Your task to perform on an android device: Add "macbook air" to the cart on costco.com Image 0: 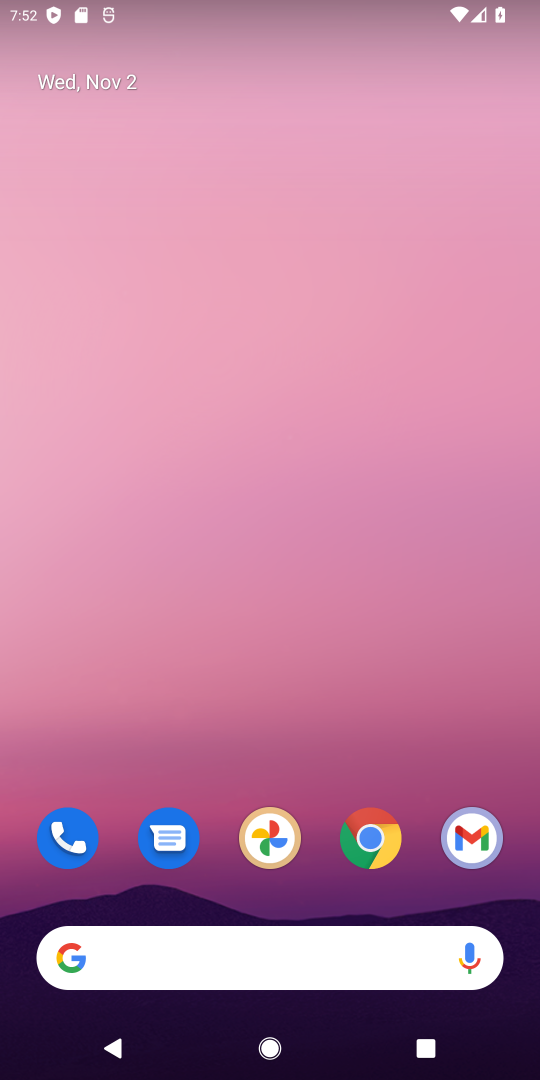
Step 0: click (379, 841)
Your task to perform on an android device: Add "macbook air" to the cart on costco.com Image 1: 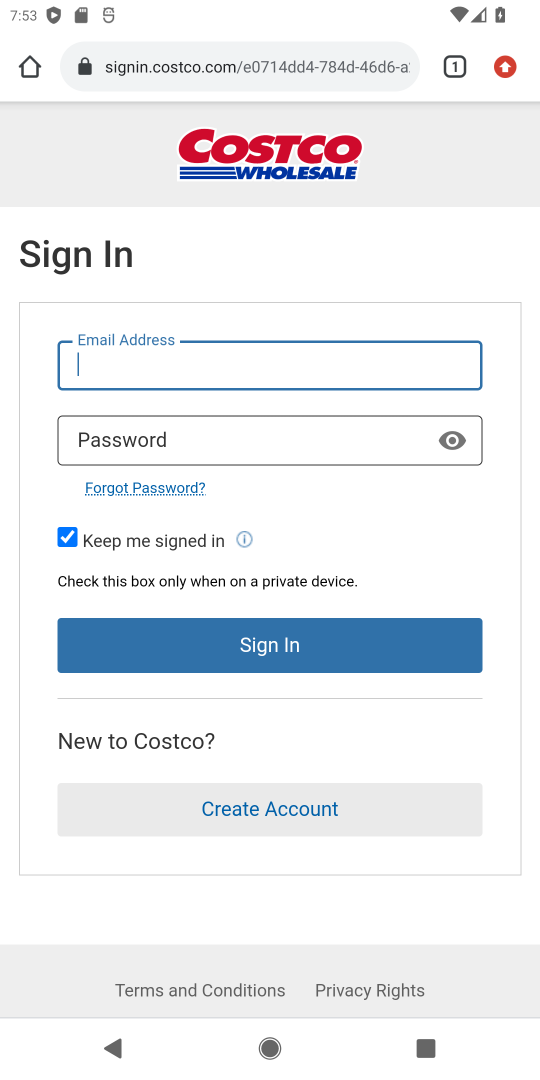
Step 1: click (269, 76)
Your task to perform on an android device: Add "macbook air" to the cart on costco.com Image 2: 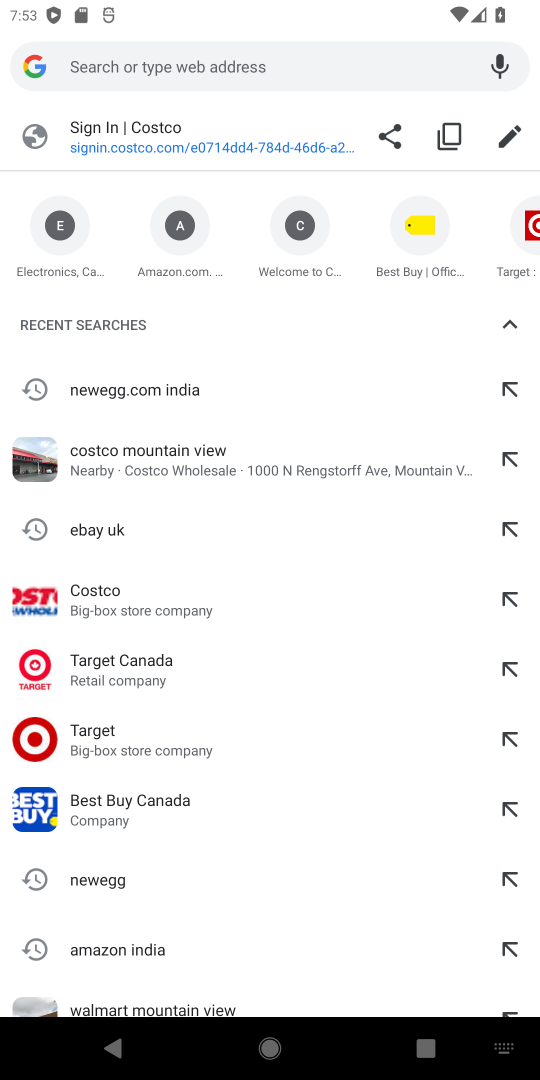
Step 2: type "costco.com"
Your task to perform on an android device: Add "macbook air" to the cart on costco.com Image 3: 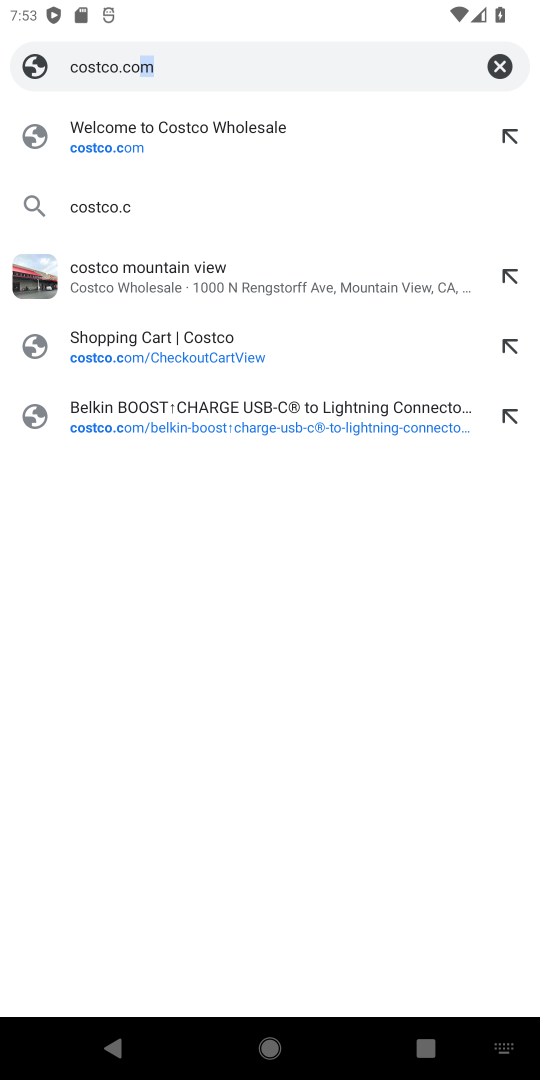
Step 3: type ""
Your task to perform on an android device: Add "macbook air" to the cart on costco.com Image 4: 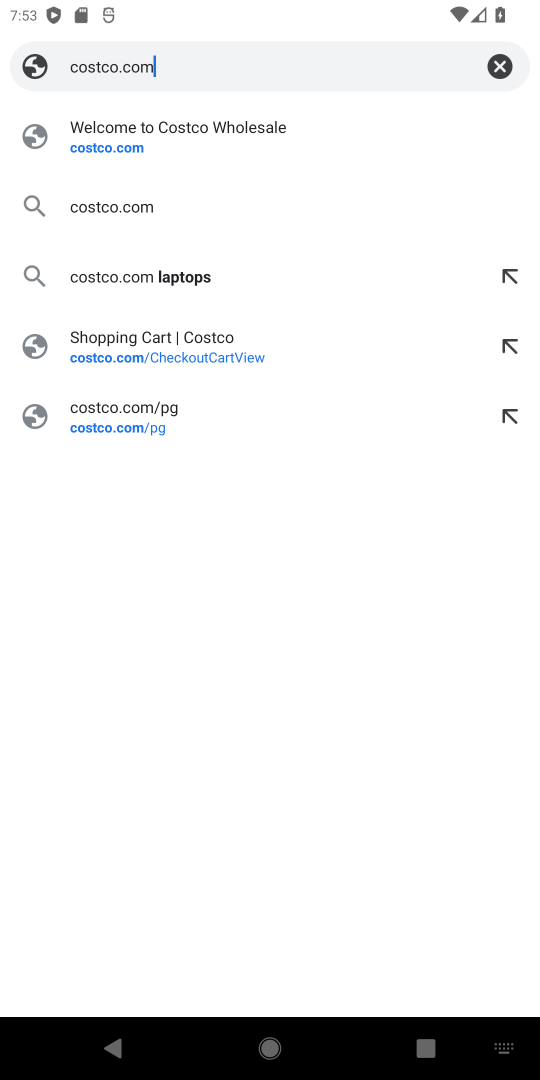
Step 4: press enter
Your task to perform on an android device: Add "macbook air" to the cart on costco.com Image 5: 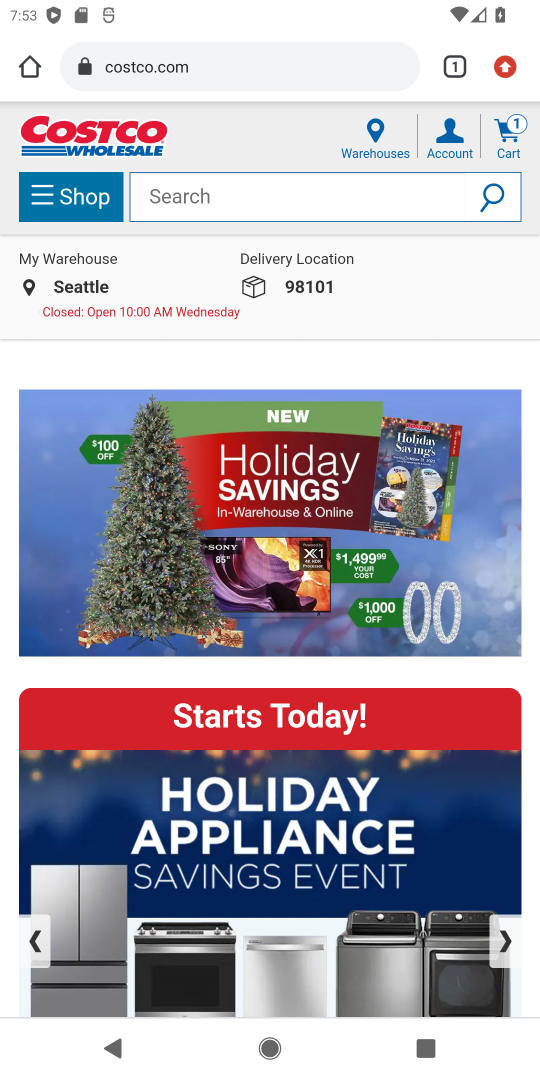
Step 5: click (309, 195)
Your task to perform on an android device: Add "macbook air" to the cart on costco.com Image 6: 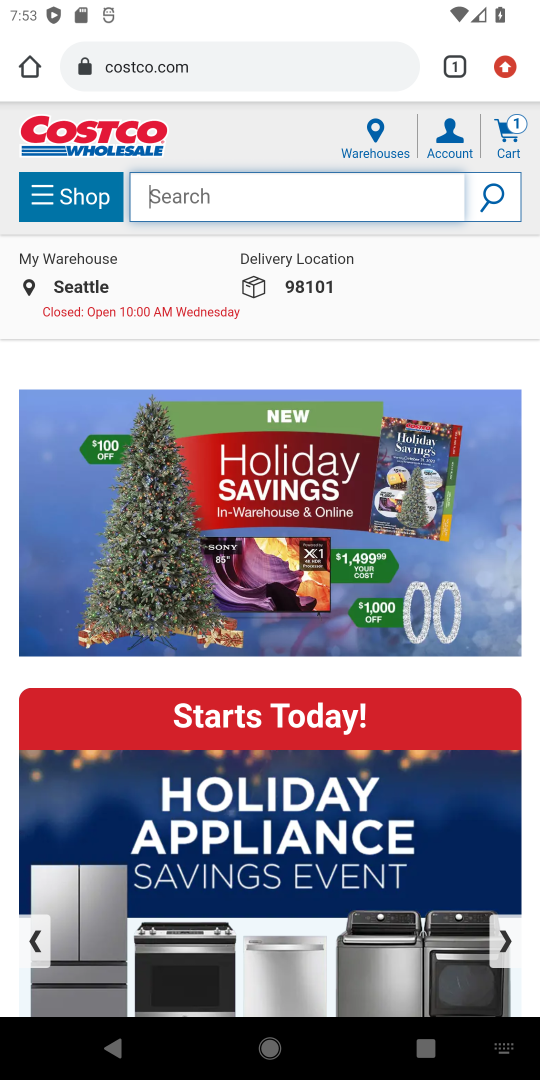
Step 6: type "macbook air"
Your task to perform on an android device: Add "macbook air" to the cart on costco.com Image 7: 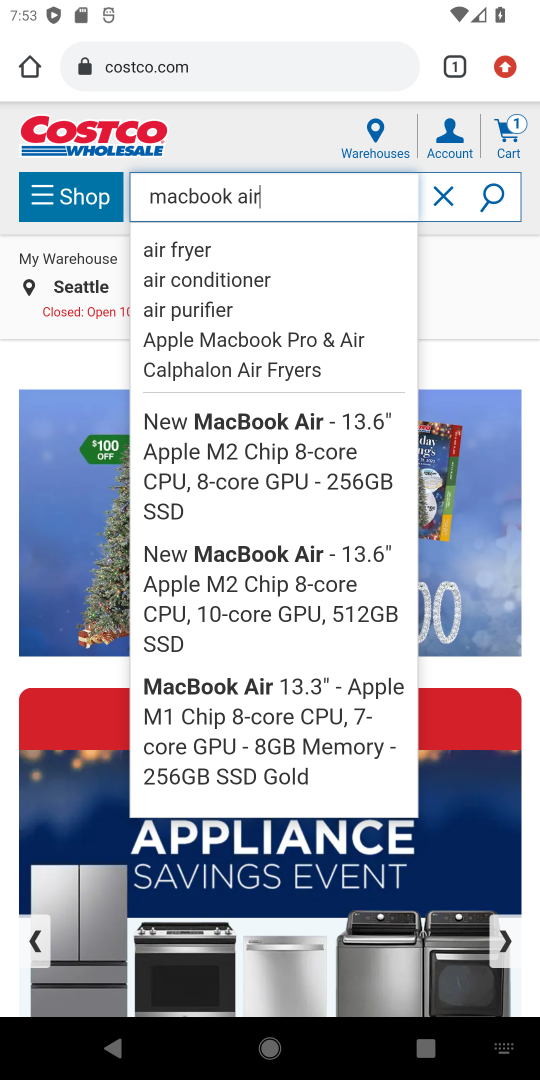
Step 7: press enter
Your task to perform on an android device: Add "macbook air" to the cart on costco.com Image 8: 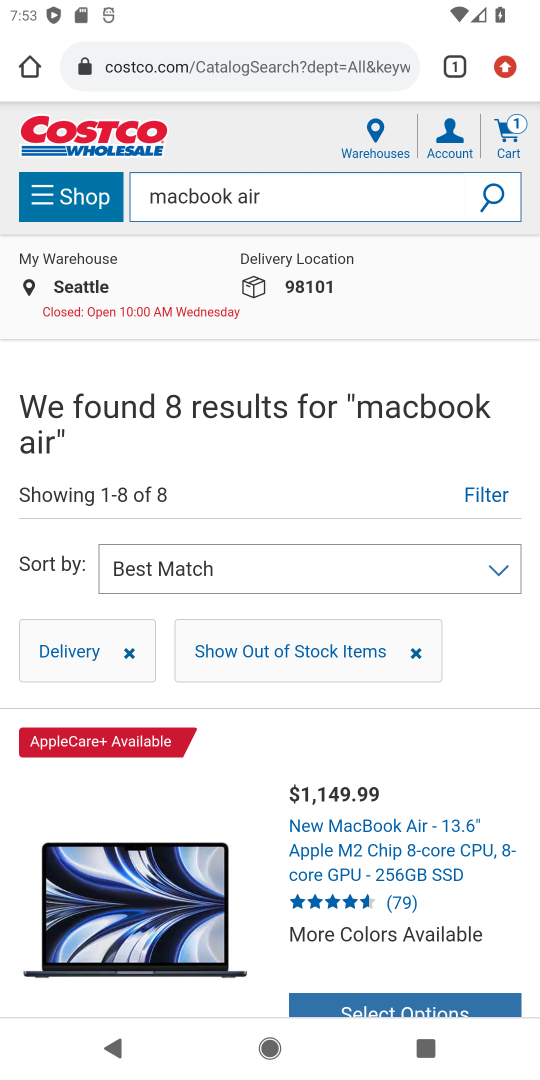
Step 8: drag from (429, 786) to (352, 528)
Your task to perform on an android device: Add "macbook air" to the cart on costco.com Image 9: 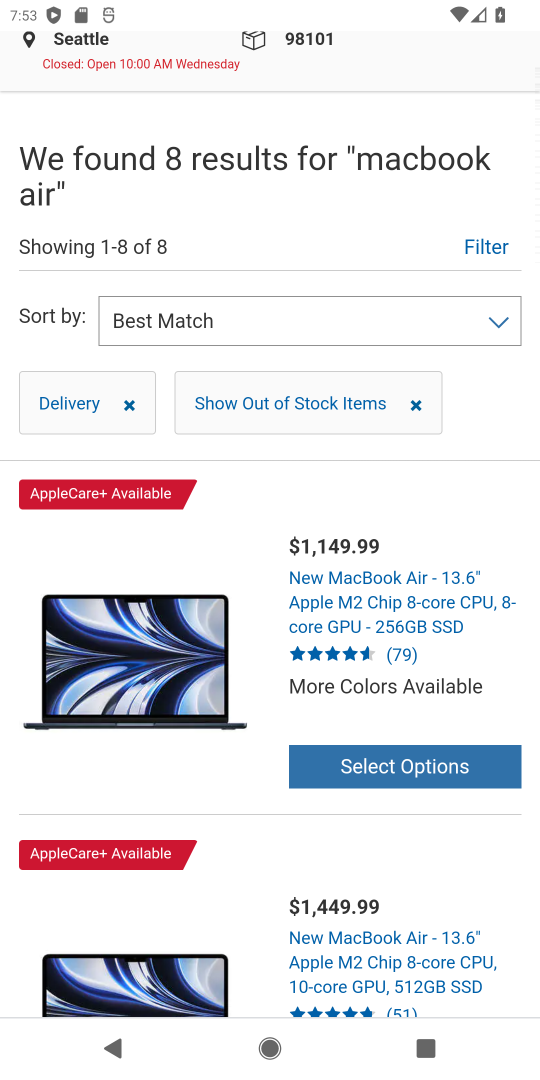
Step 9: click (403, 602)
Your task to perform on an android device: Add "macbook air" to the cart on costco.com Image 10: 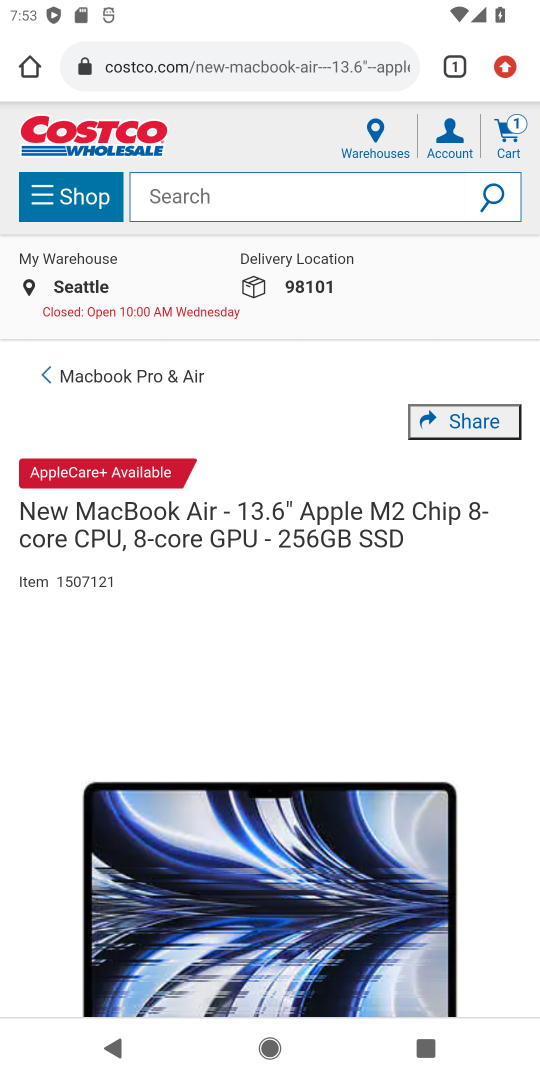
Step 10: drag from (464, 822) to (421, 39)
Your task to perform on an android device: Add "macbook air" to the cart on costco.com Image 11: 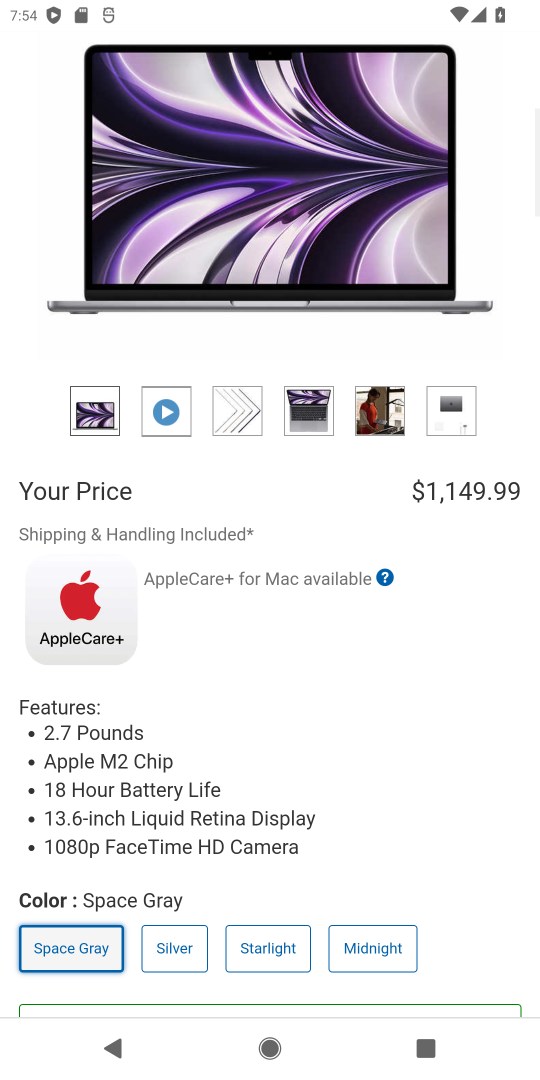
Step 11: drag from (484, 795) to (472, 215)
Your task to perform on an android device: Add "macbook air" to the cart on costco.com Image 12: 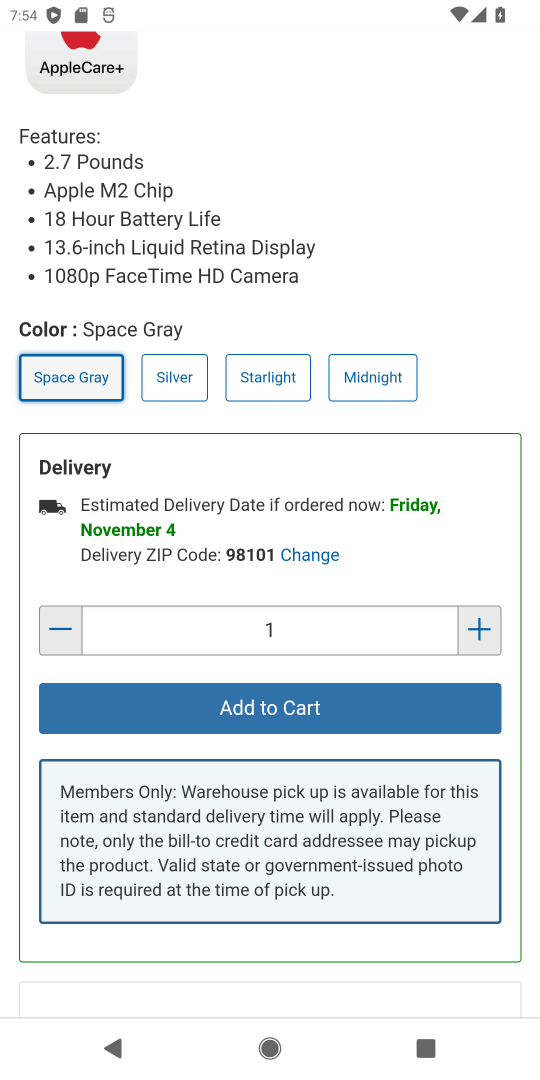
Step 12: click (436, 696)
Your task to perform on an android device: Add "macbook air" to the cart on costco.com Image 13: 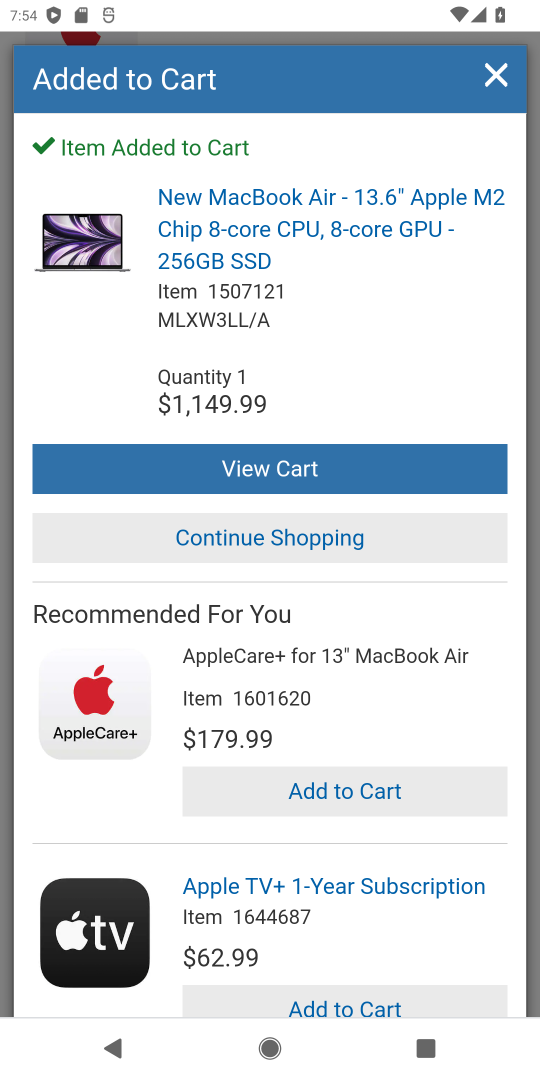
Step 13: click (302, 455)
Your task to perform on an android device: Add "macbook air" to the cart on costco.com Image 14: 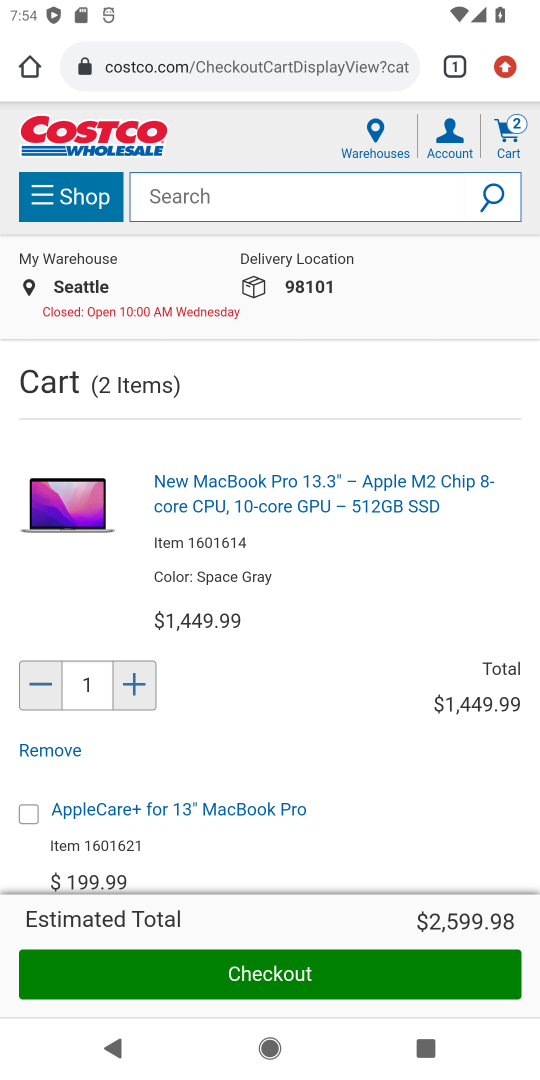
Step 14: click (328, 973)
Your task to perform on an android device: Add "macbook air" to the cart on costco.com Image 15: 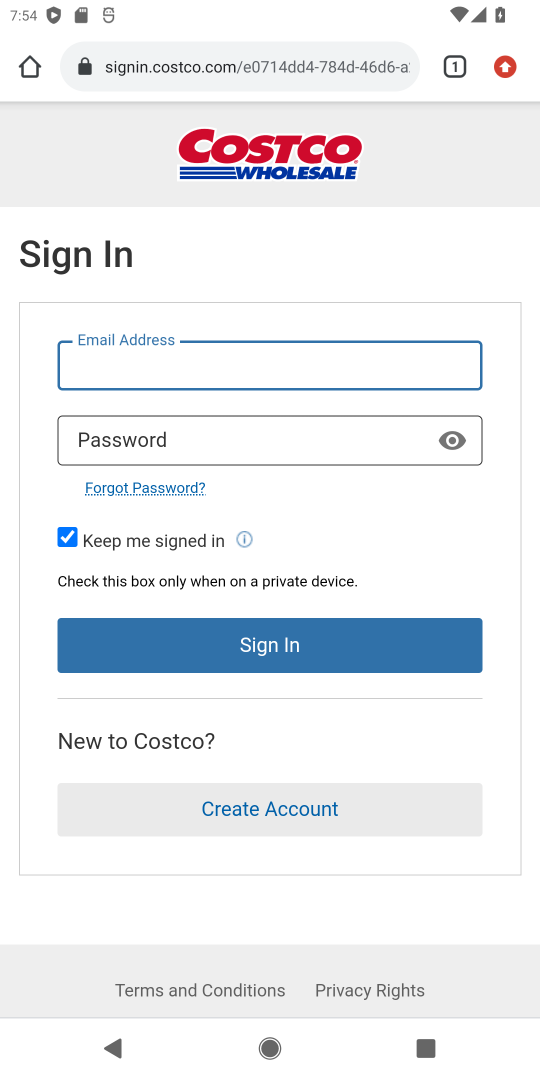
Step 15: task complete